Your task to perform on an android device: create a new album in the google photos Image 0: 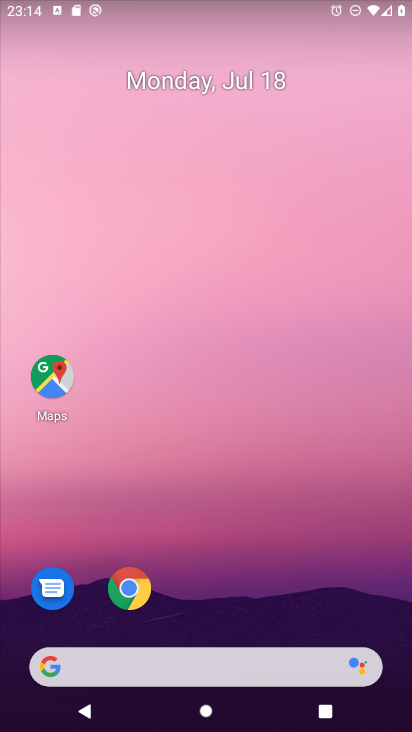
Step 0: drag from (367, 604) to (318, 70)
Your task to perform on an android device: create a new album in the google photos Image 1: 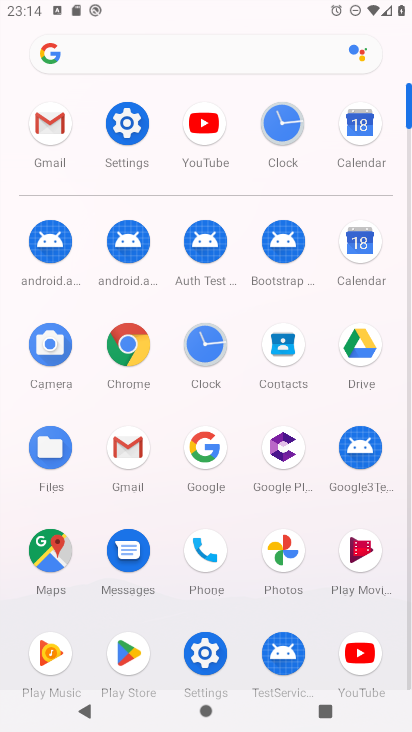
Step 1: click (283, 545)
Your task to perform on an android device: create a new album in the google photos Image 2: 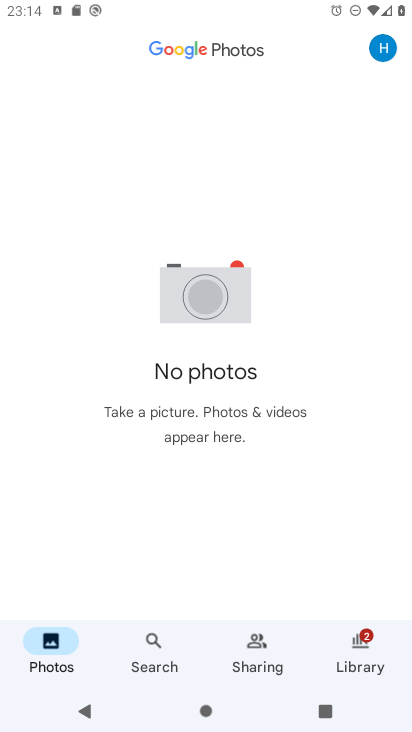
Step 2: click (362, 641)
Your task to perform on an android device: create a new album in the google photos Image 3: 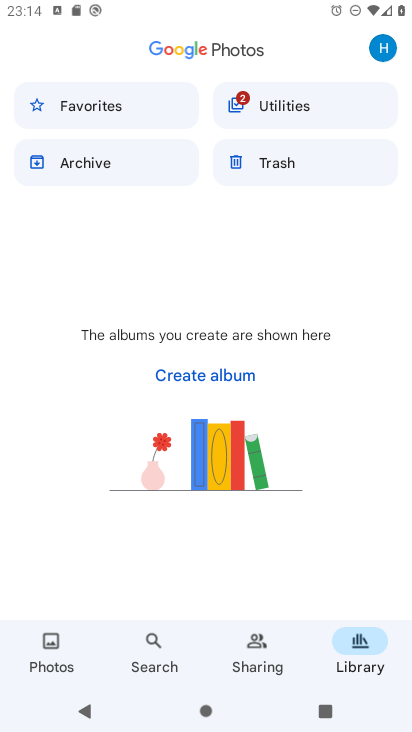
Step 3: click (197, 377)
Your task to perform on an android device: create a new album in the google photos Image 4: 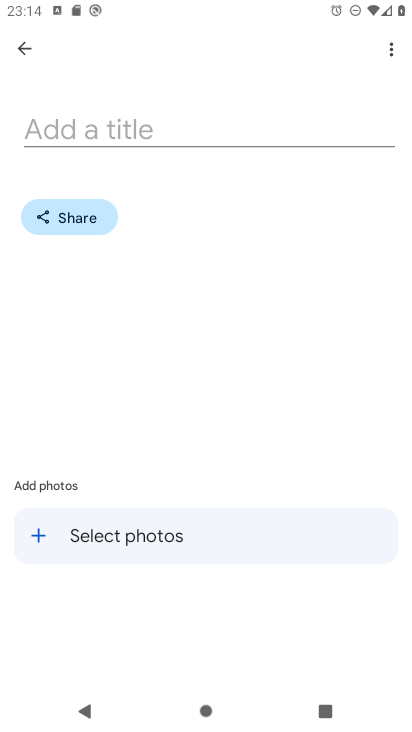
Step 4: click (87, 132)
Your task to perform on an android device: create a new album in the google photos Image 5: 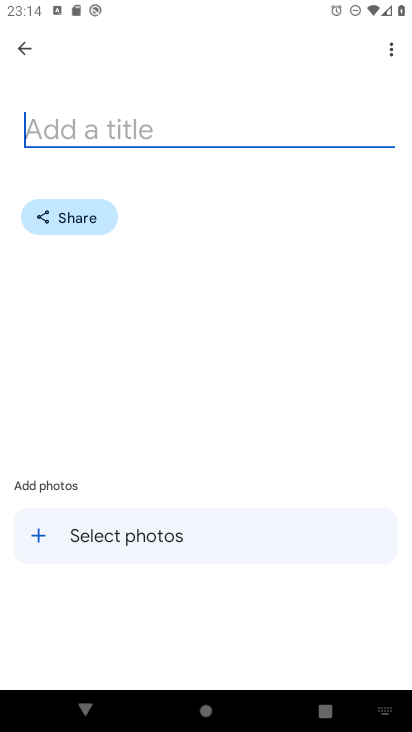
Step 5: type "kjhgf"
Your task to perform on an android device: create a new album in the google photos Image 6: 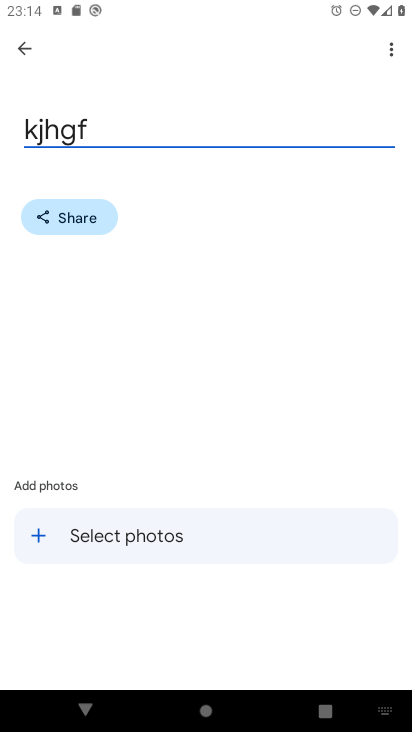
Step 6: click (37, 535)
Your task to perform on an android device: create a new album in the google photos Image 7: 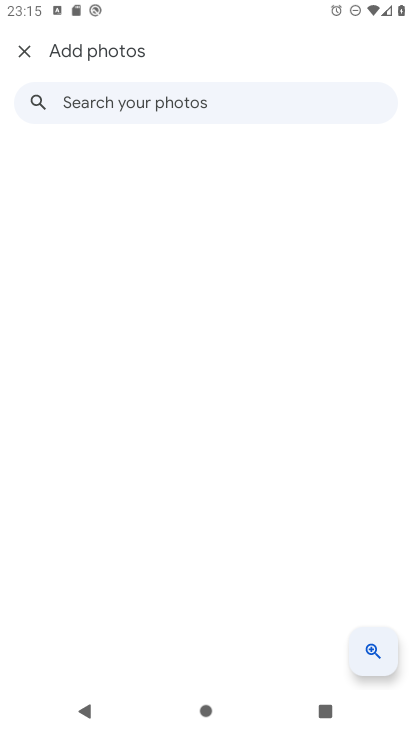
Step 7: task complete